Your task to perform on an android device: toggle airplane mode Image 0: 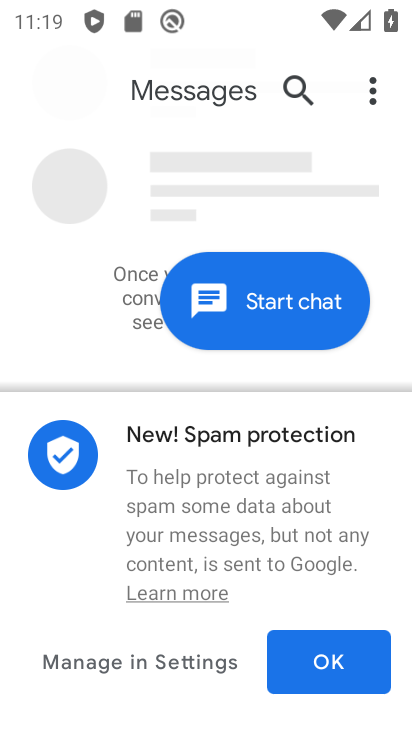
Step 0: press home button
Your task to perform on an android device: toggle airplane mode Image 1: 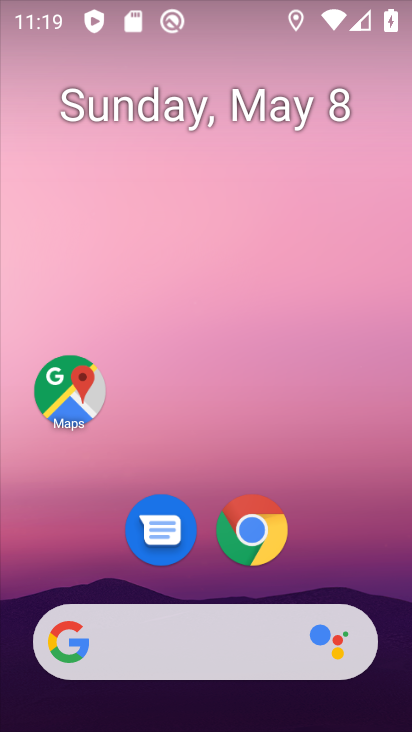
Step 1: drag from (281, 8) to (250, 714)
Your task to perform on an android device: toggle airplane mode Image 2: 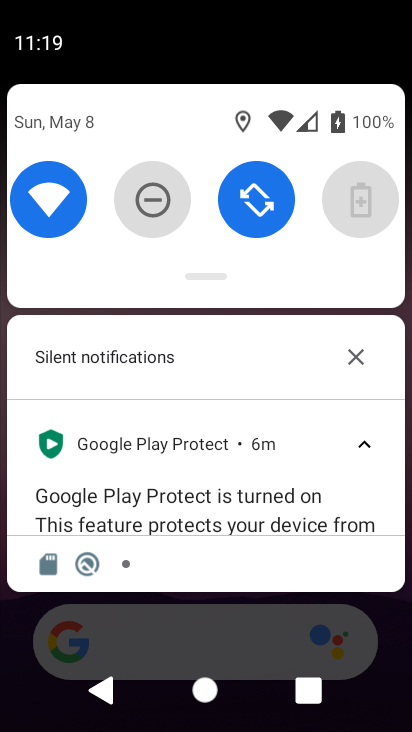
Step 2: drag from (257, 268) to (241, 629)
Your task to perform on an android device: toggle airplane mode Image 3: 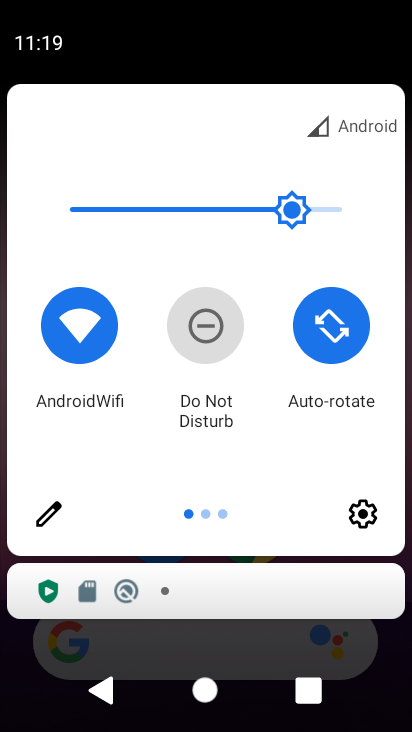
Step 3: drag from (373, 460) to (4, 479)
Your task to perform on an android device: toggle airplane mode Image 4: 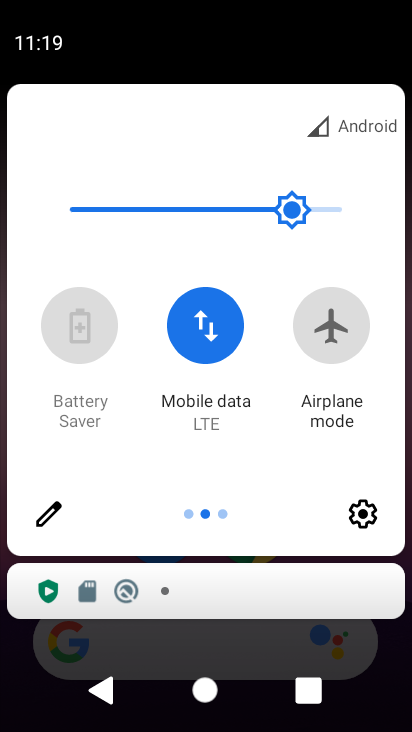
Step 4: click (348, 327)
Your task to perform on an android device: toggle airplane mode Image 5: 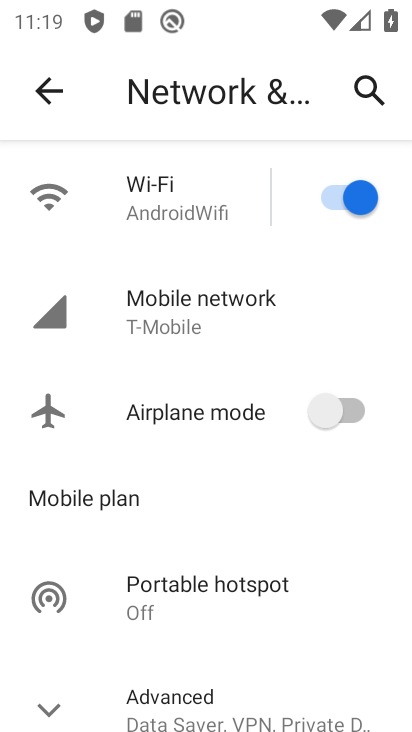
Step 5: click (355, 404)
Your task to perform on an android device: toggle airplane mode Image 6: 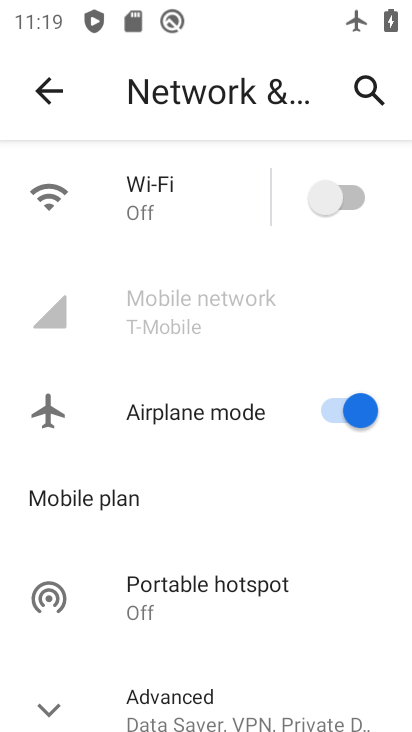
Step 6: task complete